Your task to perform on an android device: remove spam from my inbox in the gmail app Image 0: 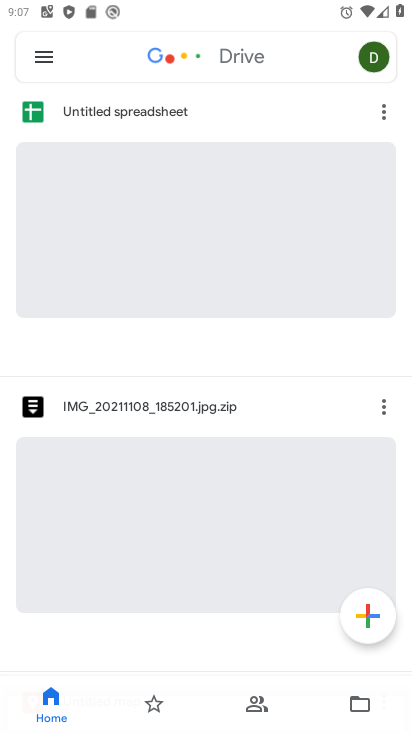
Step 0: press home button
Your task to perform on an android device: remove spam from my inbox in the gmail app Image 1: 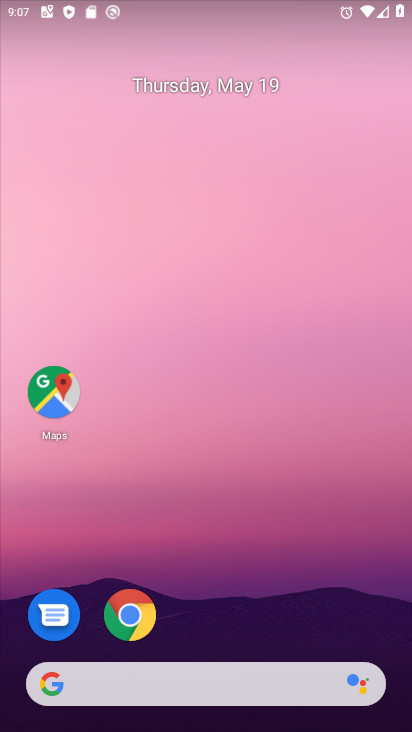
Step 1: drag from (276, 601) to (258, 22)
Your task to perform on an android device: remove spam from my inbox in the gmail app Image 2: 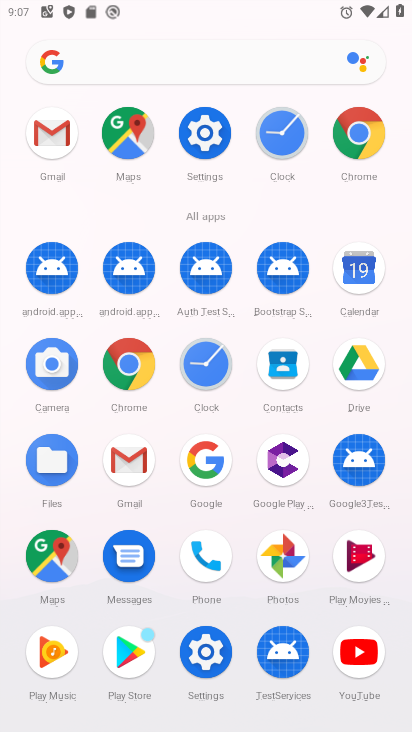
Step 2: click (52, 159)
Your task to perform on an android device: remove spam from my inbox in the gmail app Image 3: 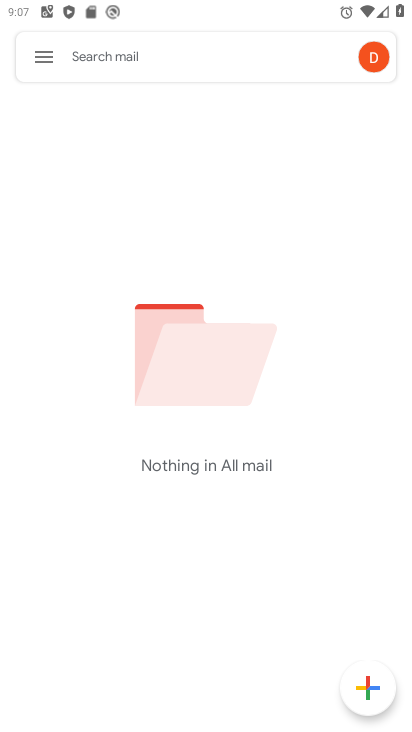
Step 3: click (50, 55)
Your task to perform on an android device: remove spam from my inbox in the gmail app Image 4: 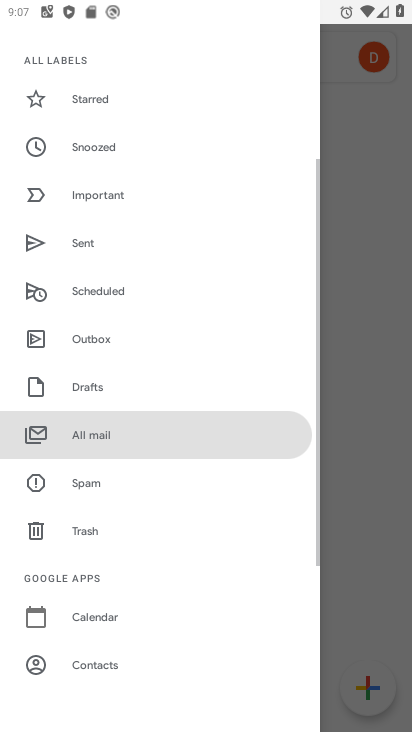
Step 4: task complete